Your task to perform on an android device: Open Google Chrome and open the bookmarks view Image 0: 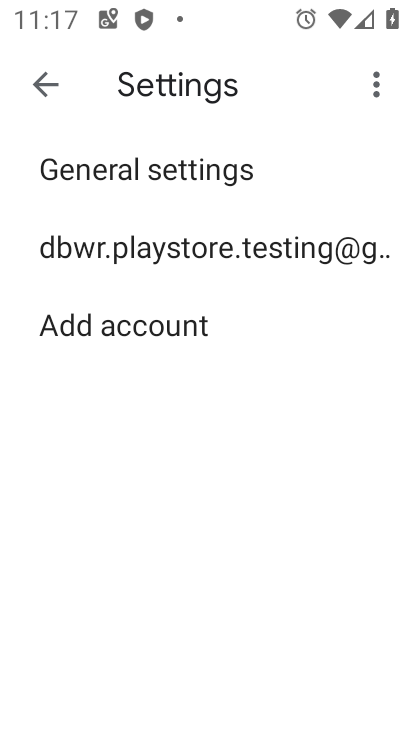
Step 0: press home button
Your task to perform on an android device: Open Google Chrome and open the bookmarks view Image 1: 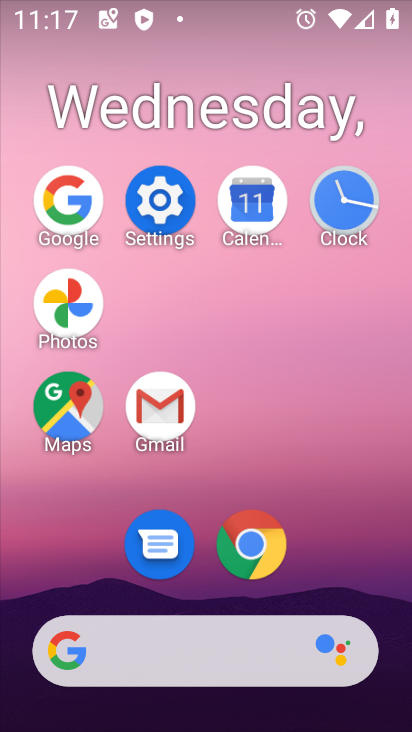
Step 1: click (251, 543)
Your task to perform on an android device: Open Google Chrome and open the bookmarks view Image 2: 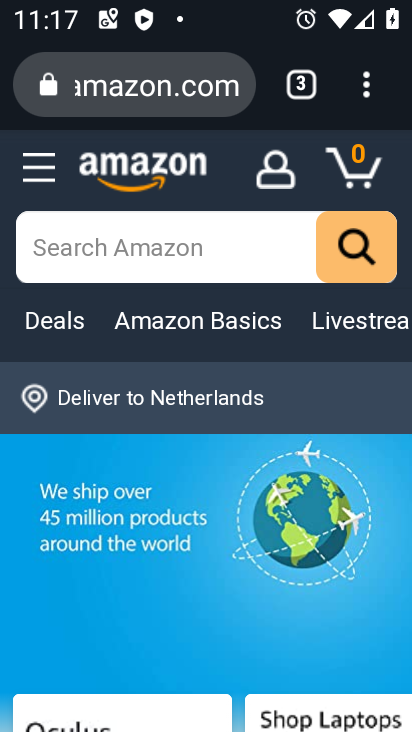
Step 2: click (370, 81)
Your task to perform on an android device: Open Google Chrome and open the bookmarks view Image 3: 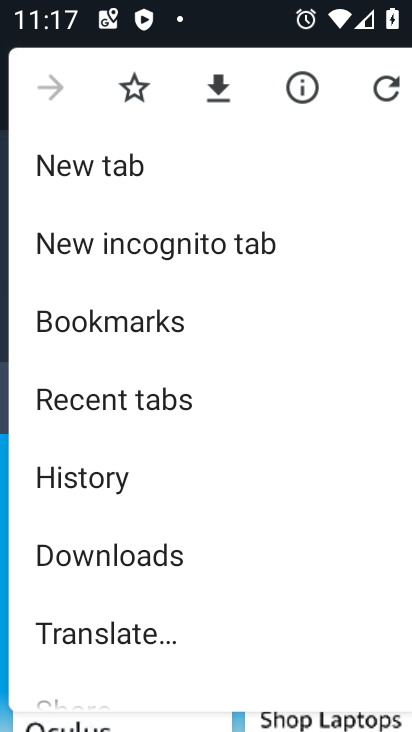
Step 3: click (194, 332)
Your task to perform on an android device: Open Google Chrome and open the bookmarks view Image 4: 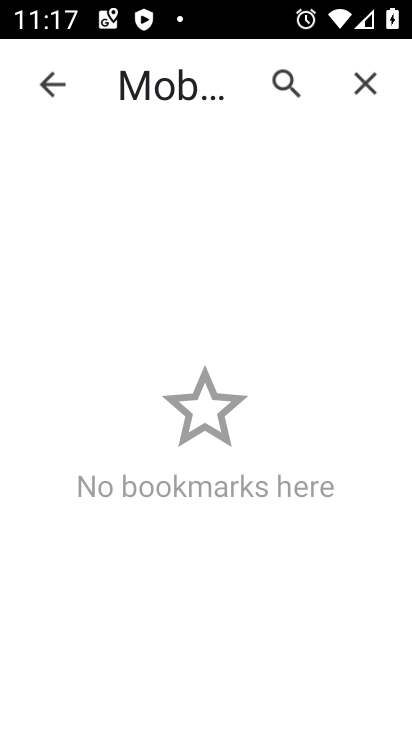
Step 4: task complete